Your task to perform on an android device: Go to CNN.com Image 0: 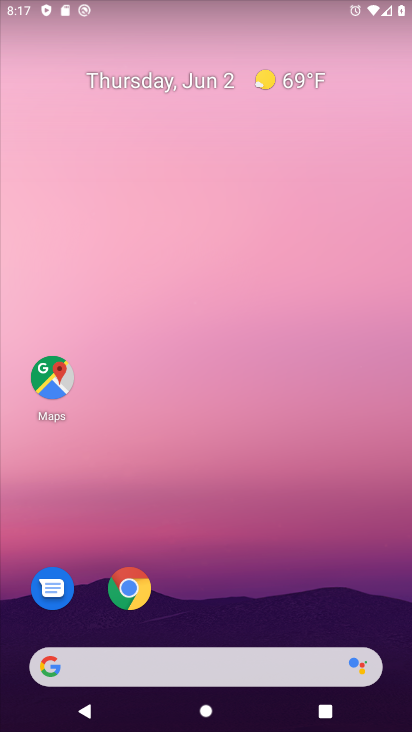
Step 0: click (127, 589)
Your task to perform on an android device: Go to CNN.com Image 1: 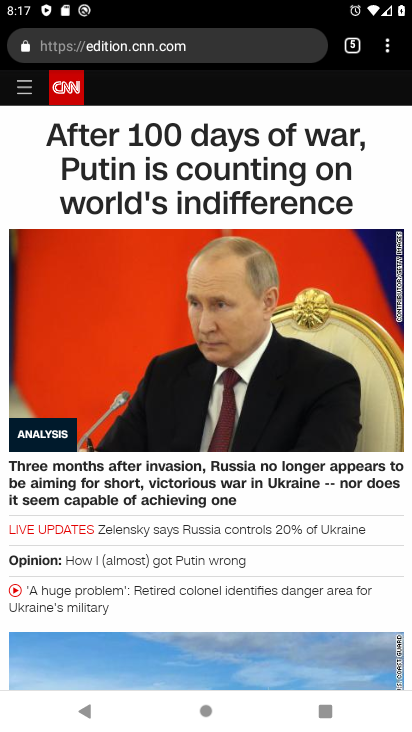
Step 1: task complete